Your task to perform on an android device: Go to wifi settings Image 0: 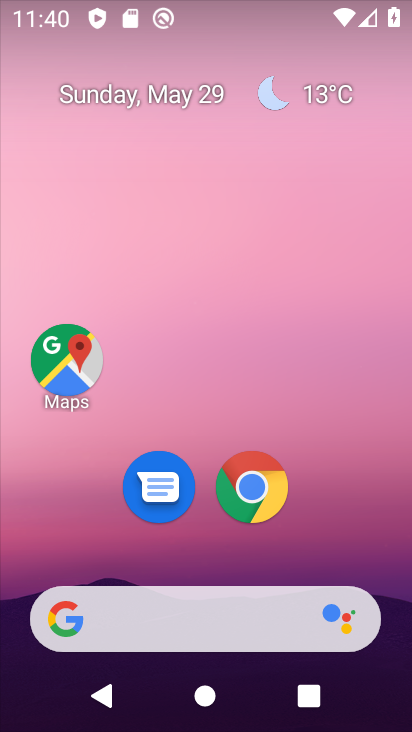
Step 0: drag from (361, 15) to (377, 554)
Your task to perform on an android device: Go to wifi settings Image 1: 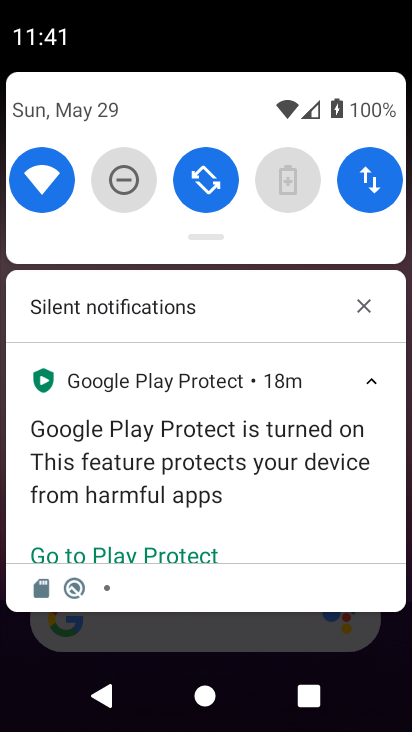
Step 1: click (58, 172)
Your task to perform on an android device: Go to wifi settings Image 2: 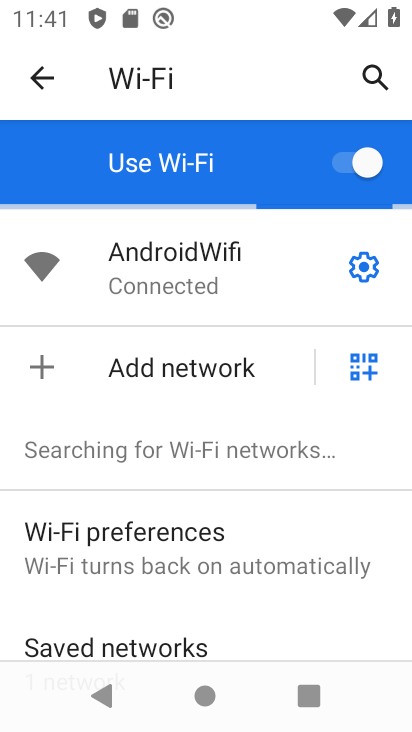
Step 2: task complete